Your task to perform on an android device: Check the news Image 0: 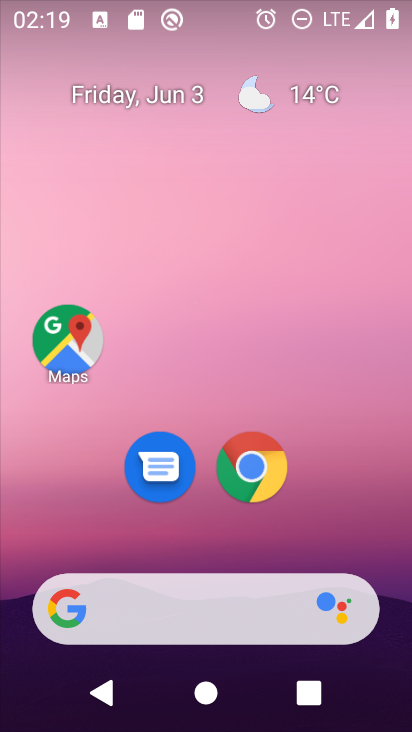
Step 0: drag from (7, 233) to (386, 286)
Your task to perform on an android device: Check the news Image 1: 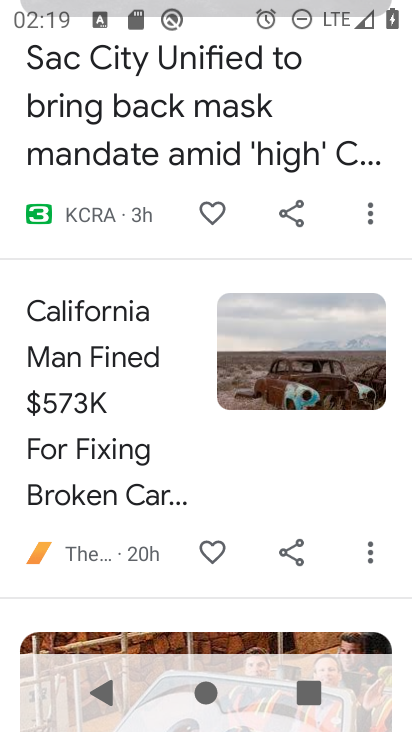
Step 1: task complete